Your task to perform on an android device: check out phone information Image 0: 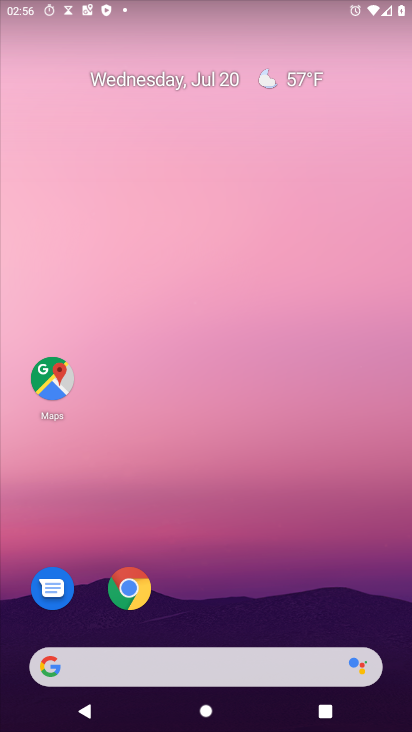
Step 0: drag from (303, 659) to (309, 3)
Your task to perform on an android device: check out phone information Image 1: 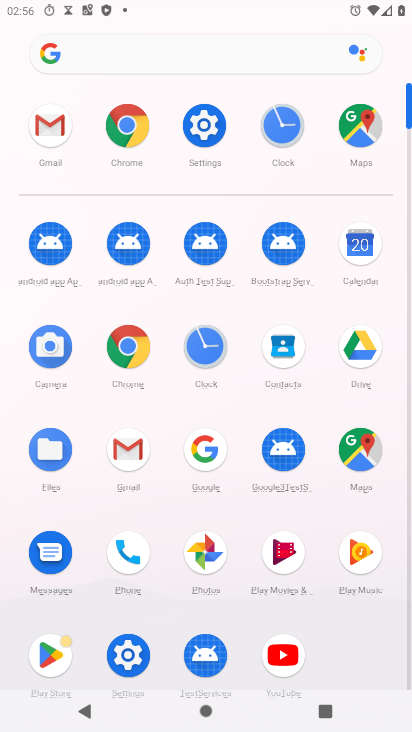
Step 1: click (207, 124)
Your task to perform on an android device: check out phone information Image 2: 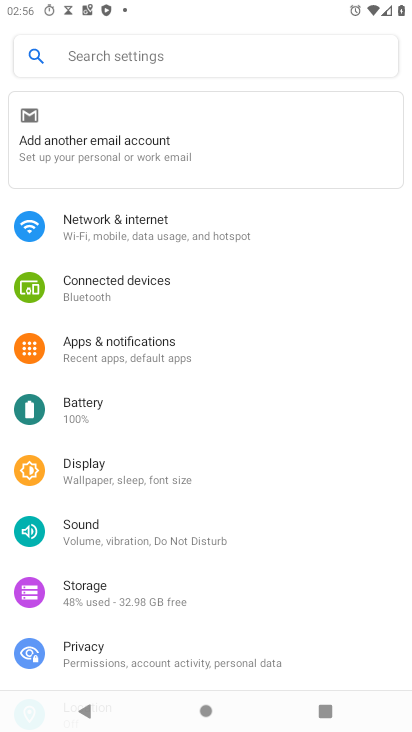
Step 2: drag from (221, 597) to (267, 71)
Your task to perform on an android device: check out phone information Image 3: 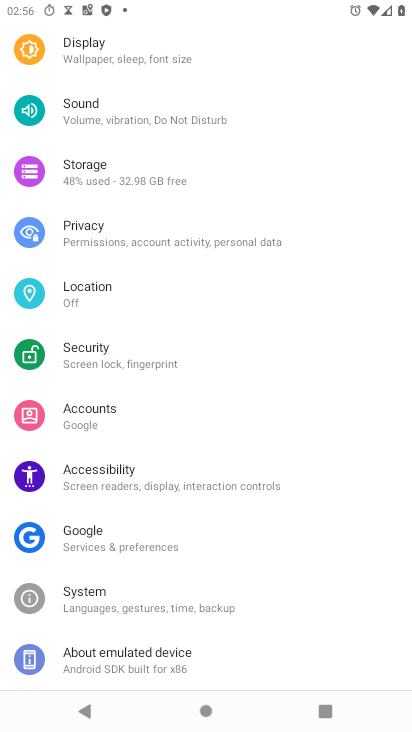
Step 3: click (193, 659)
Your task to perform on an android device: check out phone information Image 4: 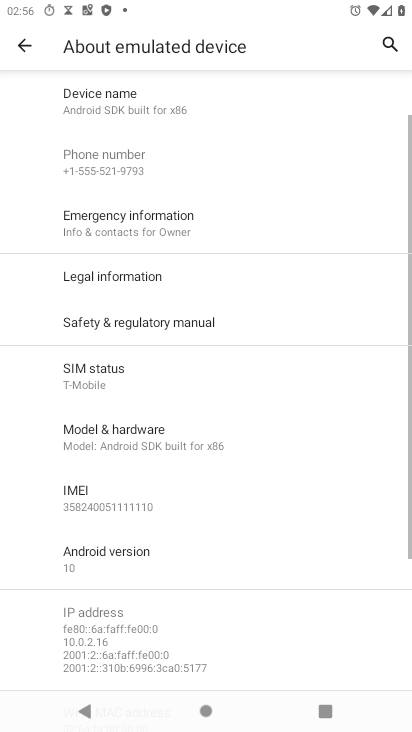
Step 4: task complete